Your task to perform on an android device: See recent photos Image 0: 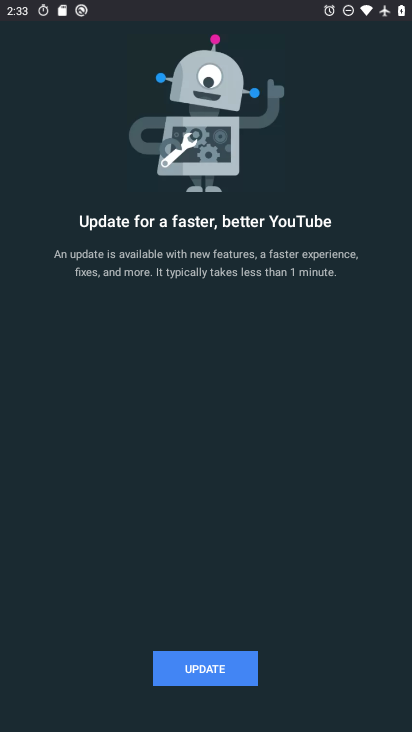
Step 0: press home button
Your task to perform on an android device: See recent photos Image 1: 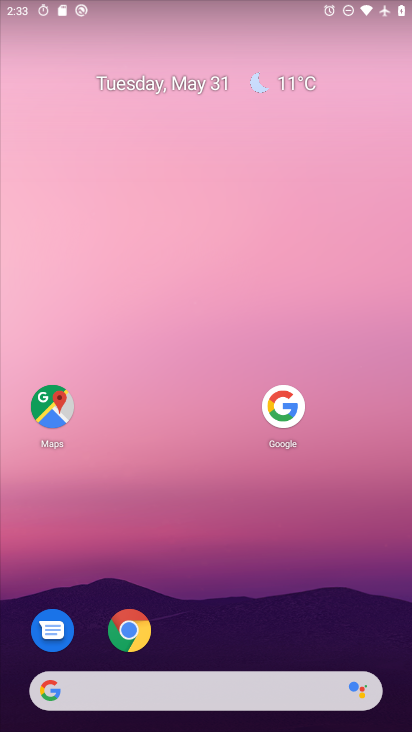
Step 1: drag from (139, 673) to (263, 163)
Your task to perform on an android device: See recent photos Image 2: 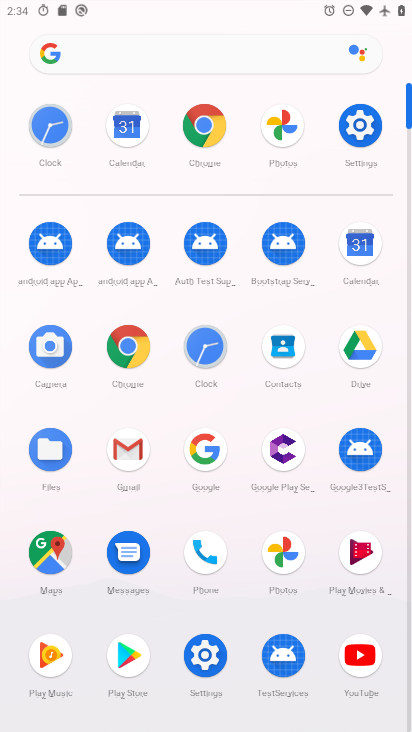
Step 2: click (276, 547)
Your task to perform on an android device: See recent photos Image 3: 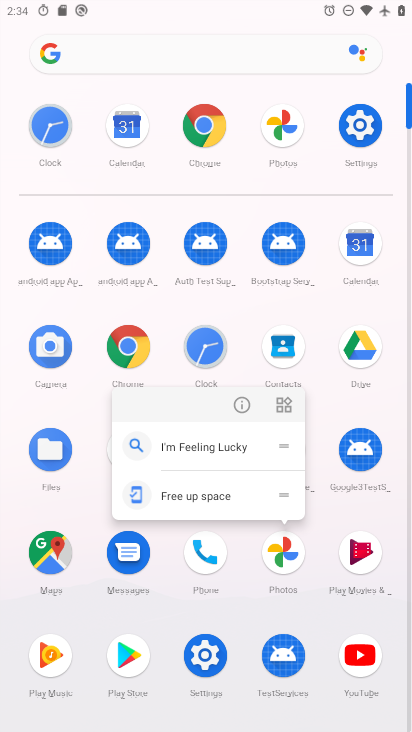
Step 3: click (284, 546)
Your task to perform on an android device: See recent photos Image 4: 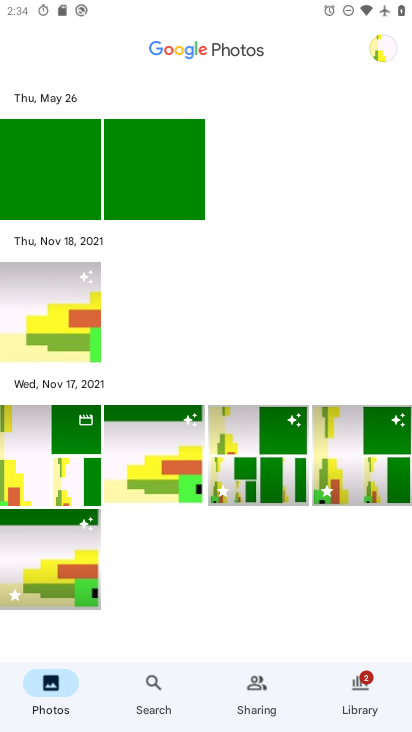
Step 4: click (157, 710)
Your task to perform on an android device: See recent photos Image 5: 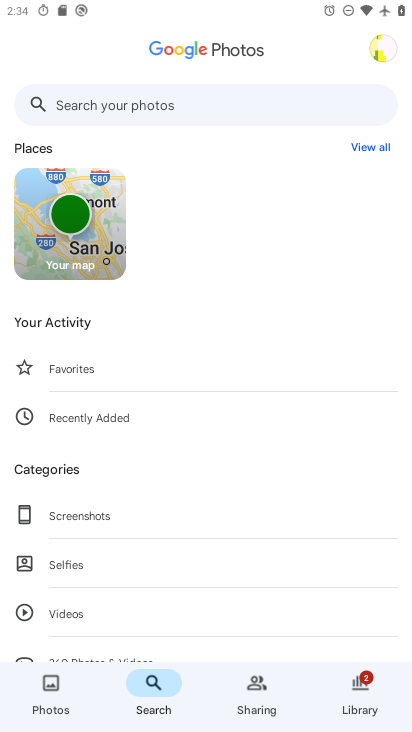
Step 5: click (104, 421)
Your task to perform on an android device: See recent photos Image 6: 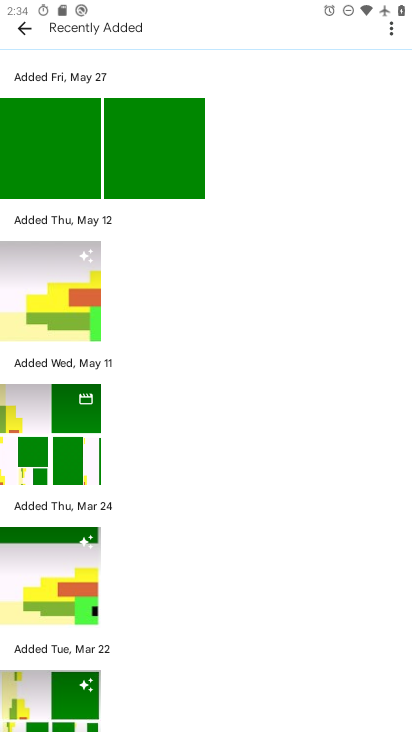
Step 6: task complete